Your task to perform on an android device: Open Google Maps and go to "Timeline" Image 0: 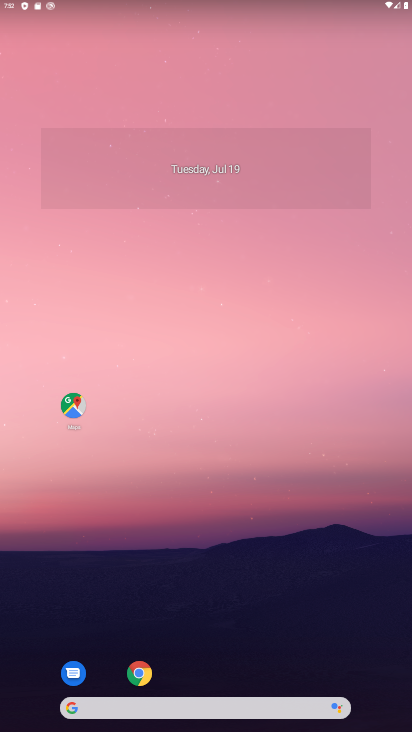
Step 0: click (77, 403)
Your task to perform on an android device: Open Google Maps and go to "Timeline" Image 1: 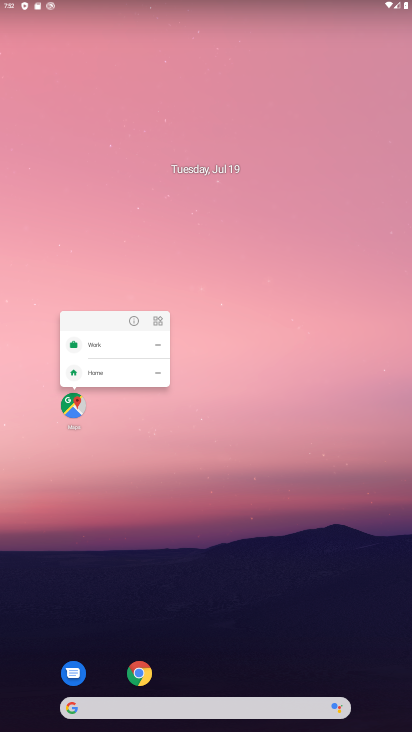
Step 1: click (77, 403)
Your task to perform on an android device: Open Google Maps and go to "Timeline" Image 2: 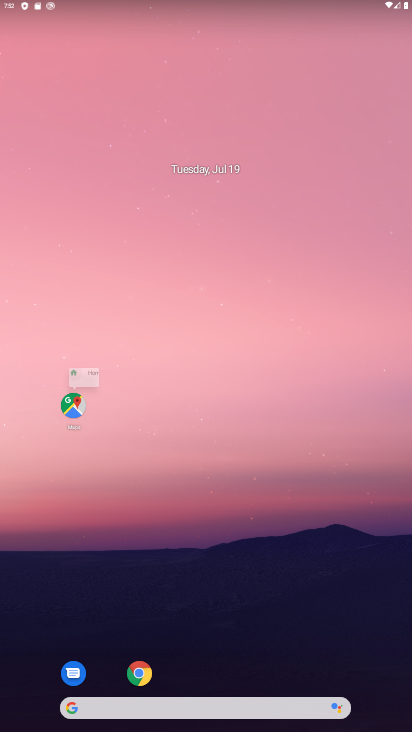
Step 2: click (77, 403)
Your task to perform on an android device: Open Google Maps and go to "Timeline" Image 3: 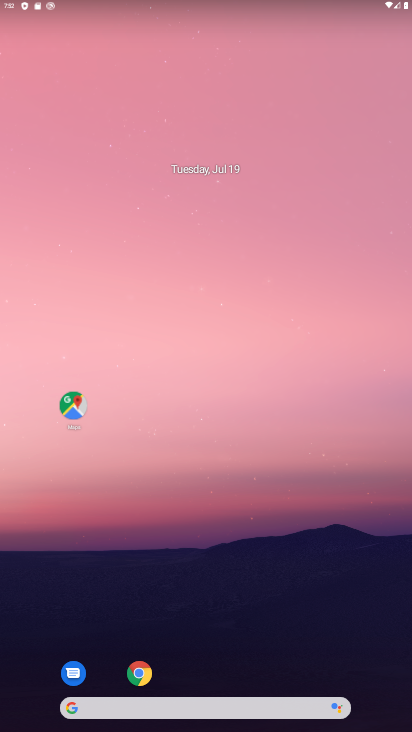
Step 3: click (77, 403)
Your task to perform on an android device: Open Google Maps and go to "Timeline" Image 4: 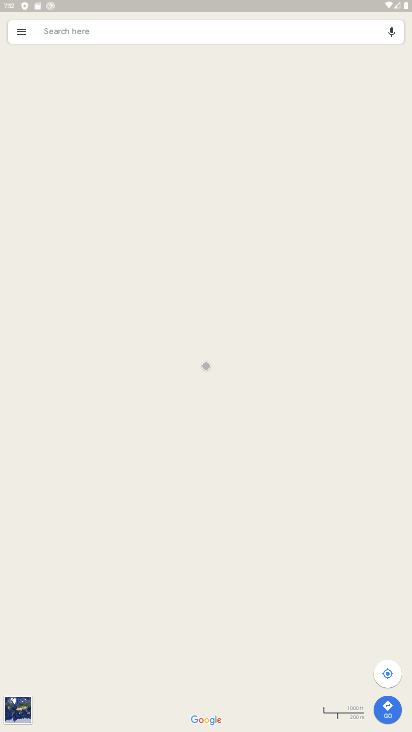
Step 4: click (16, 31)
Your task to perform on an android device: Open Google Maps and go to "Timeline" Image 5: 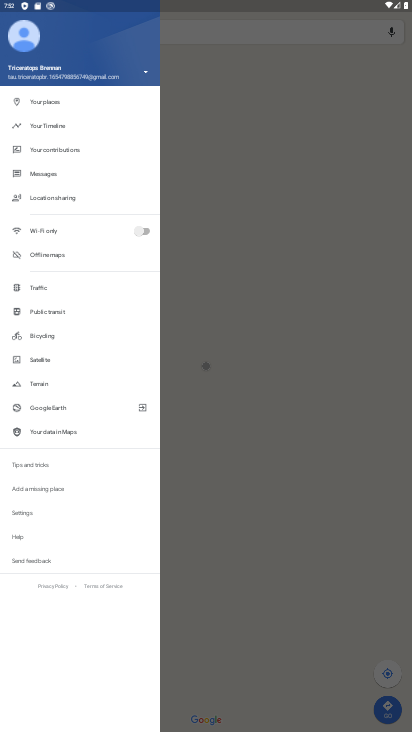
Step 5: click (44, 128)
Your task to perform on an android device: Open Google Maps and go to "Timeline" Image 6: 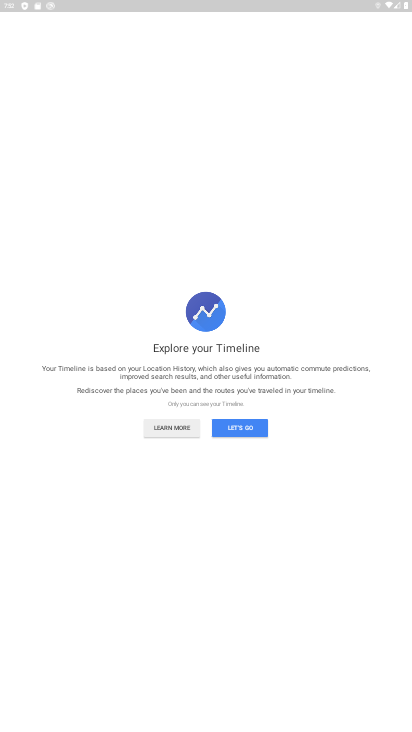
Step 6: click (243, 423)
Your task to perform on an android device: Open Google Maps and go to "Timeline" Image 7: 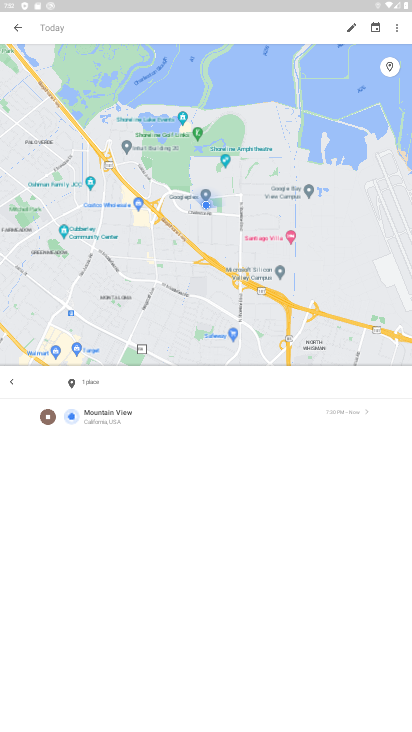
Step 7: task complete